Your task to perform on an android device: Show me the alarms in the clock app Image 0: 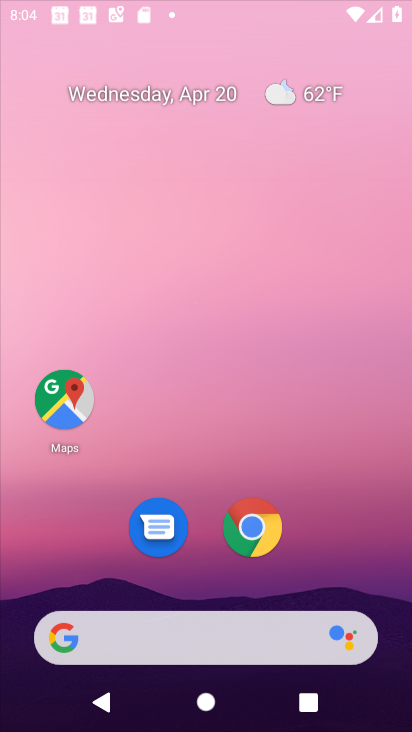
Step 0: drag from (175, 595) to (282, 298)
Your task to perform on an android device: Show me the alarms in the clock app Image 1: 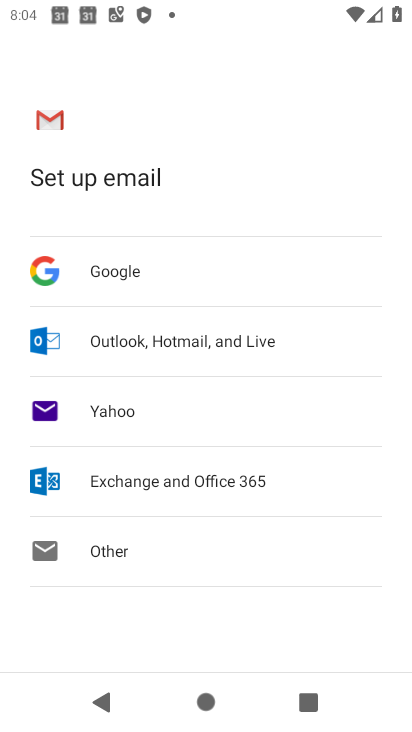
Step 1: press home button
Your task to perform on an android device: Show me the alarms in the clock app Image 2: 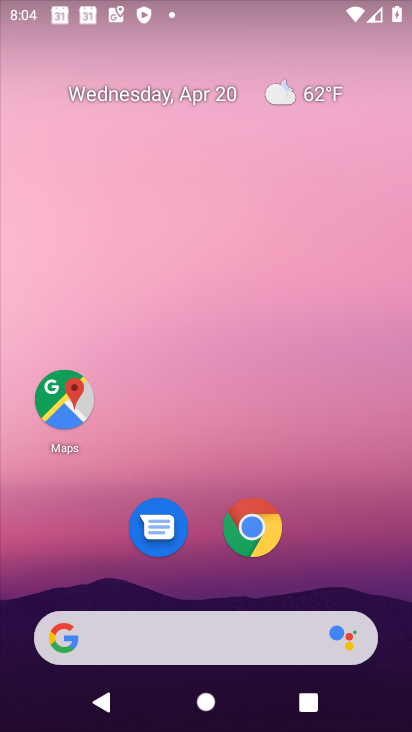
Step 2: drag from (199, 597) to (288, 305)
Your task to perform on an android device: Show me the alarms in the clock app Image 3: 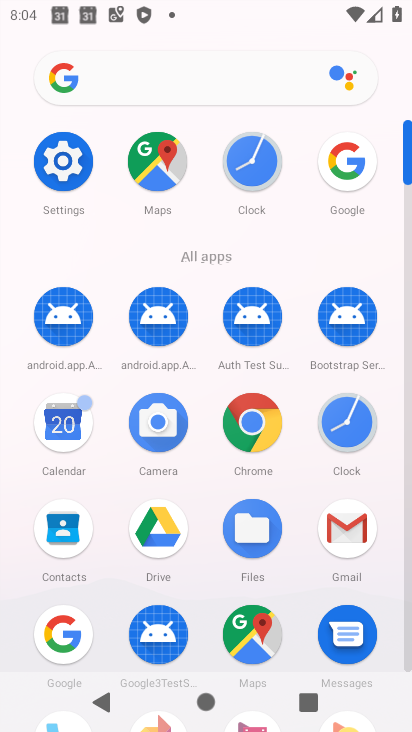
Step 3: click (366, 429)
Your task to perform on an android device: Show me the alarms in the clock app Image 4: 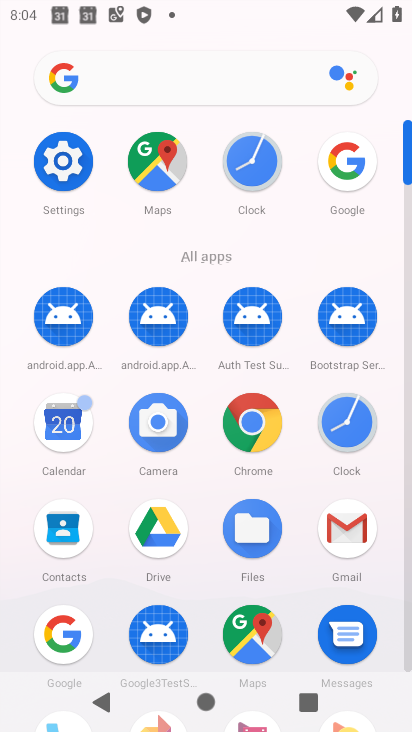
Step 4: click (349, 435)
Your task to perform on an android device: Show me the alarms in the clock app Image 5: 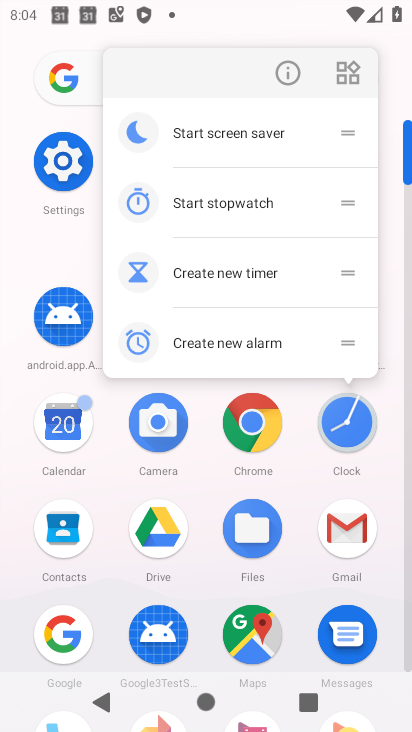
Step 5: click (346, 433)
Your task to perform on an android device: Show me the alarms in the clock app Image 6: 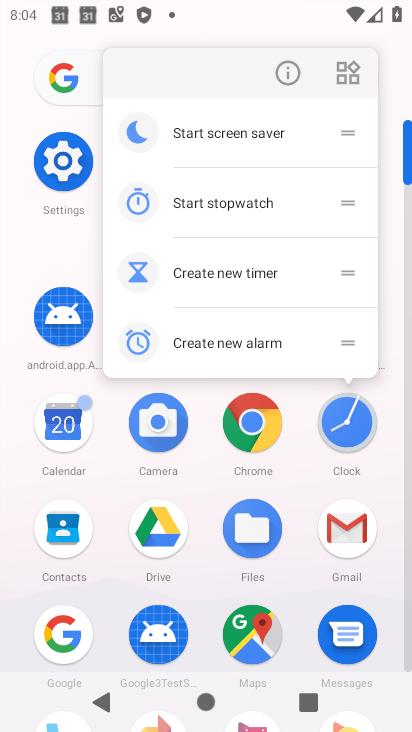
Step 6: click (346, 433)
Your task to perform on an android device: Show me the alarms in the clock app Image 7: 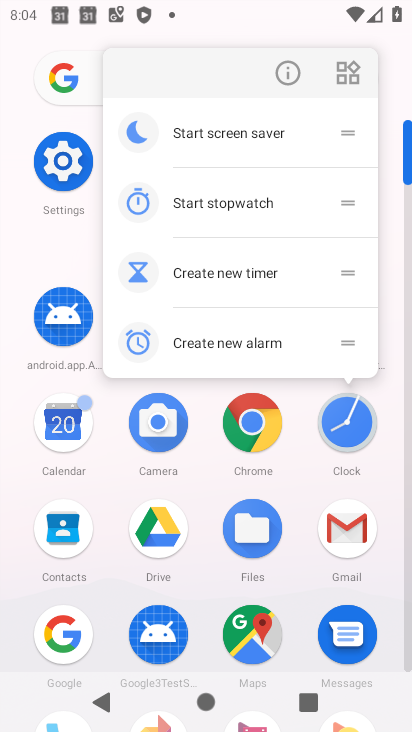
Step 7: click (355, 415)
Your task to perform on an android device: Show me the alarms in the clock app Image 8: 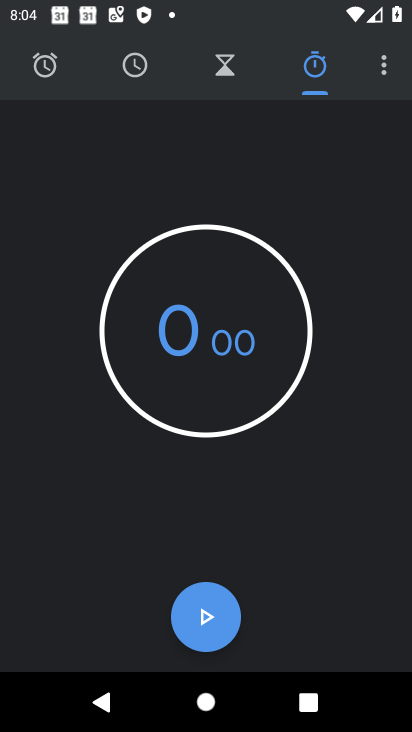
Step 8: click (48, 71)
Your task to perform on an android device: Show me the alarms in the clock app Image 9: 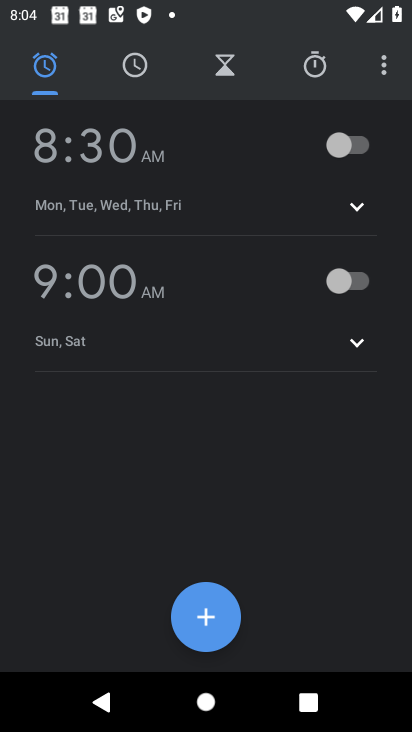
Step 9: task complete